Your task to perform on an android device: change your default location settings in chrome Image 0: 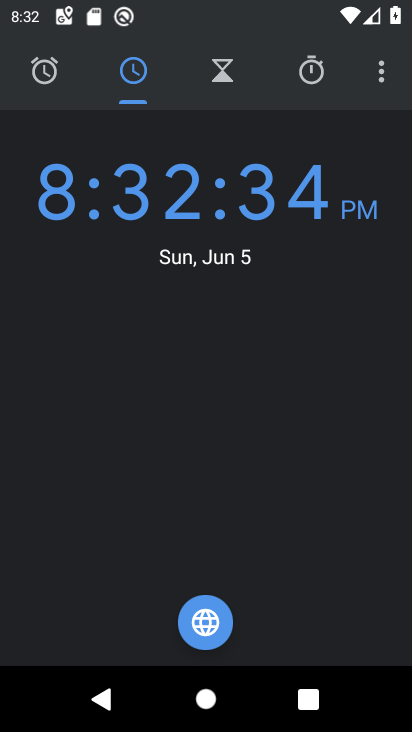
Step 0: press home button
Your task to perform on an android device: change your default location settings in chrome Image 1: 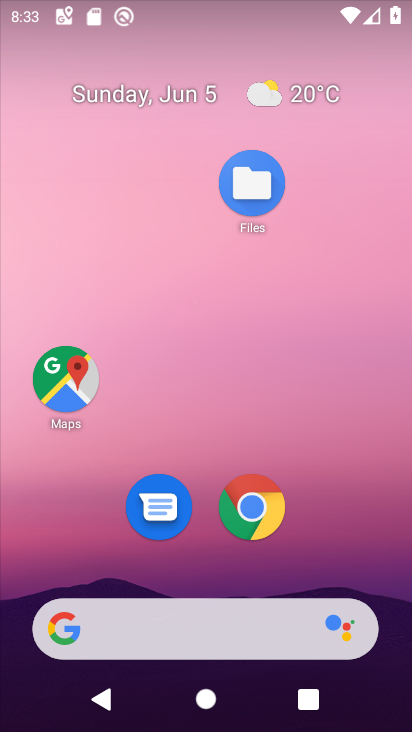
Step 1: click (264, 499)
Your task to perform on an android device: change your default location settings in chrome Image 2: 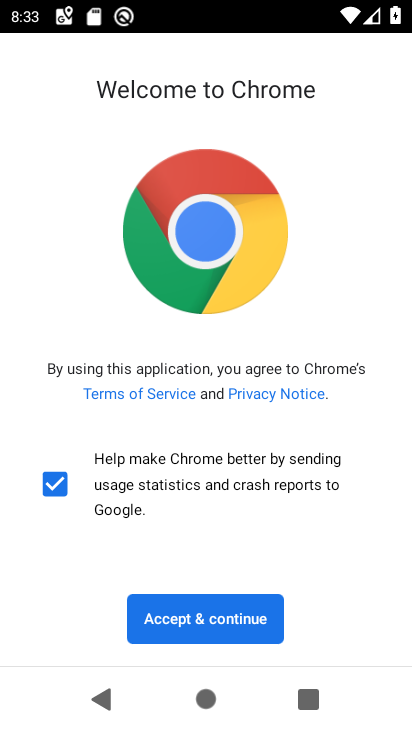
Step 2: click (227, 602)
Your task to perform on an android device: change your default location settings in chrome Image 3: 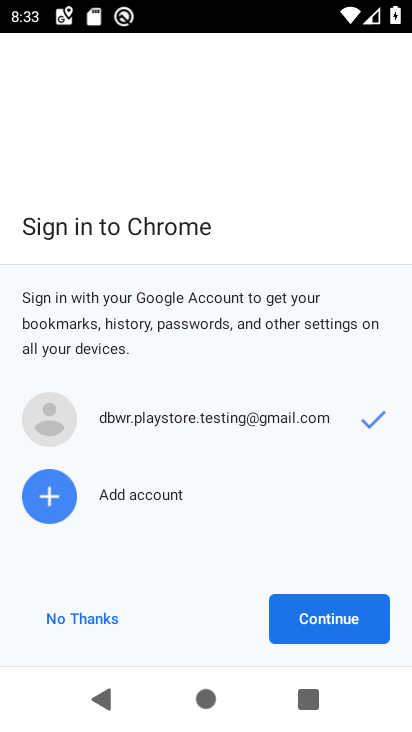
Step 3: click (319, 608)
Your task to perform on an android device: change your default location settings in chrome Image 4: 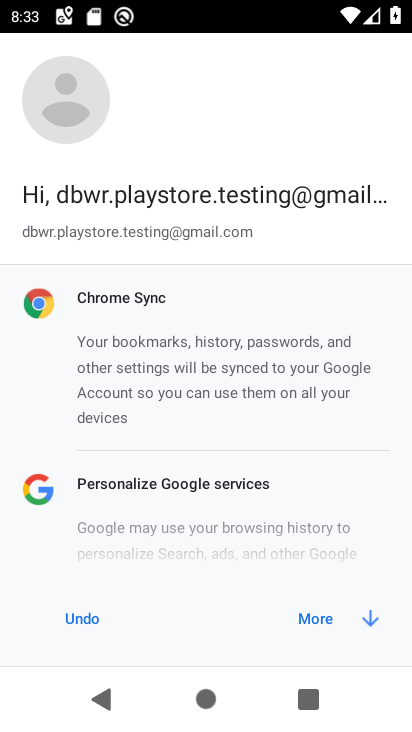
Step 4: click (319, 608)
Your task to perform on an android device: change your default location settings in chrome Image 5: 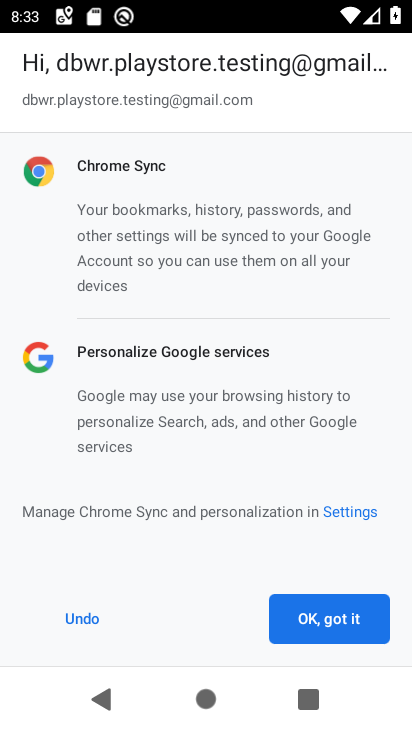
Step 5: click (319, 608)
Your task to perform on an android device: change your default location settings in chrome Image 6: 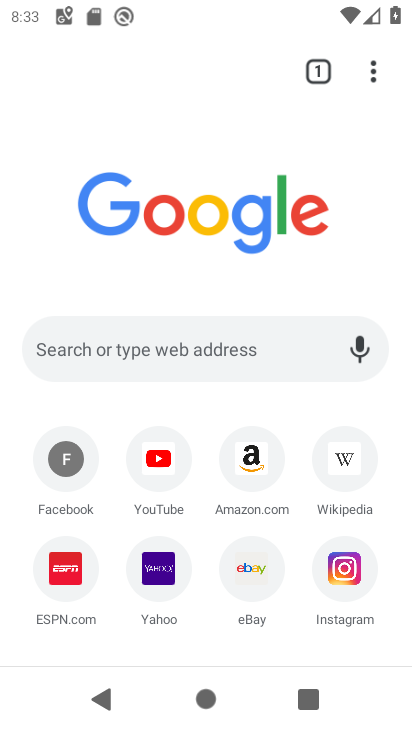
Step 6: click (368, 77)
Your task to perform on an android device: change your default location settings in chrome Image 7: 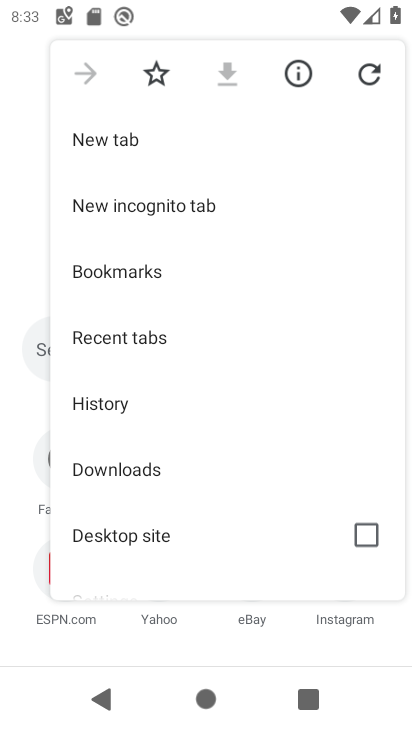
Step 7: drag from (121, 568) to (86, 307)
Your task to perform on an android device: change your default location settings in chrome Image 8: 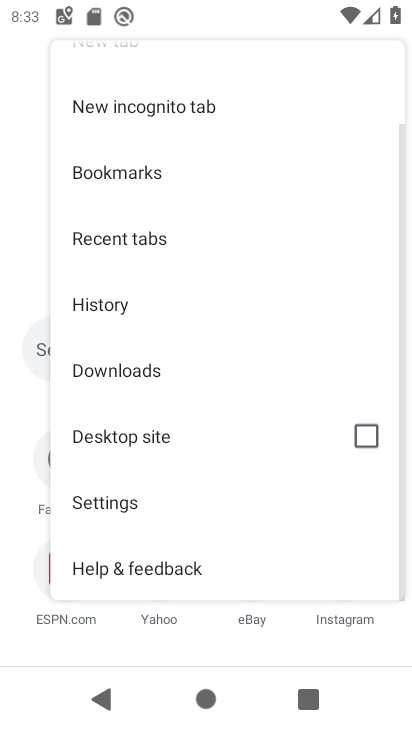
Step 8: click (115, 490)
Your task to perform on an android device: change your default location settings in chrome Image 9: 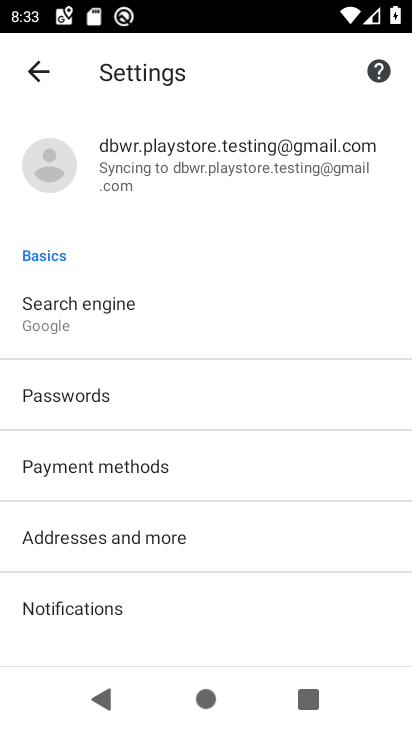
Step 9: click (119, 339)
Your task to perform on an android device: change your default location settings in chrome Image 10: 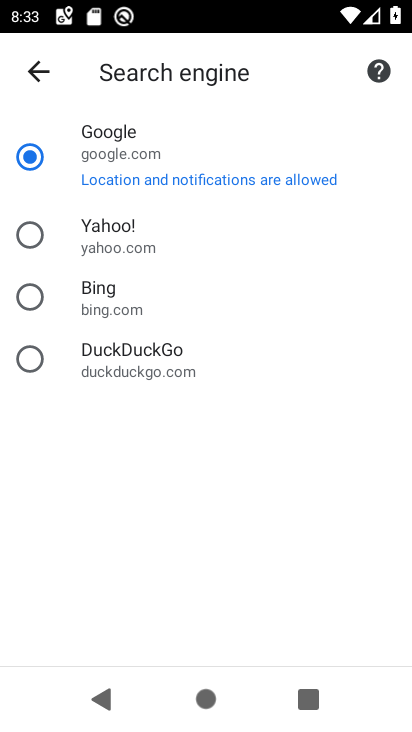
Step 10: click (46, 65)
Your task to perform on an android device: change your default location settings in chrome Image 11: 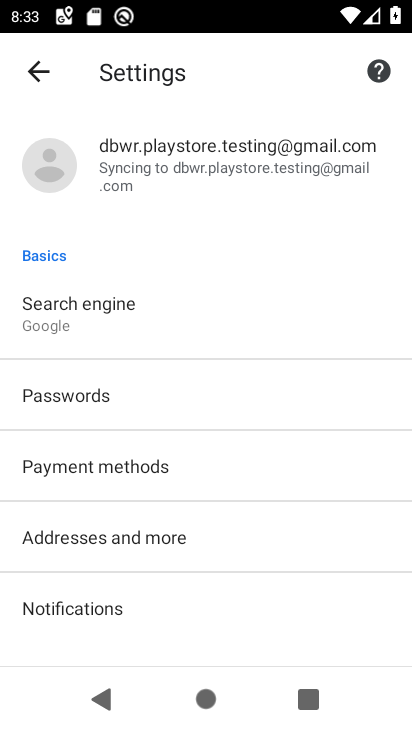
Step 11: drag from (79, 553) to (62, 315)
Your task to perform on an android device: change your default location settings in chrome Image 12: 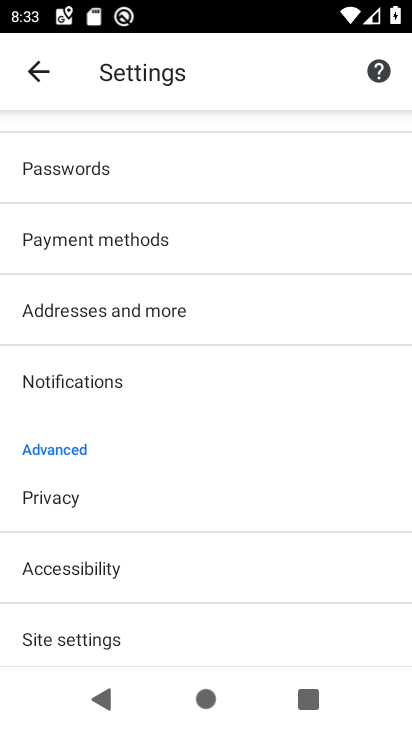
Step 12: click (77, 619)
Your task to perform on an android device: change your default location settings in chrome Image 13: 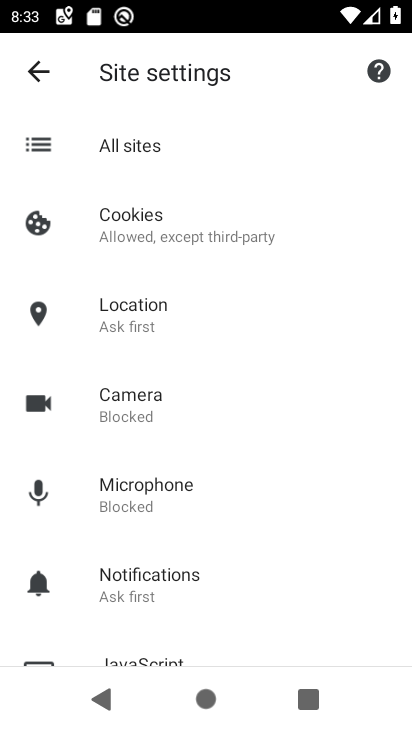
Step 13: click (138, 314)
Your task to perform on an android device: change your default location settings in chrome Image 14: 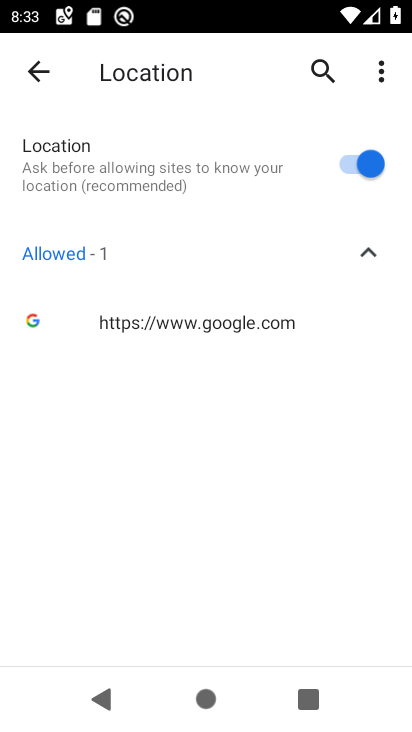
Step 14: task complete